Your task to perform on an android device: check battery use Image 0: 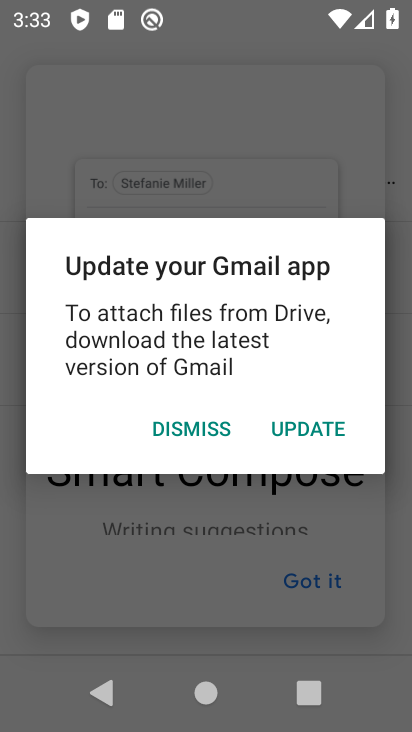
Step 0: press home button
Your task to perform on an android device: check battery use Image 1: 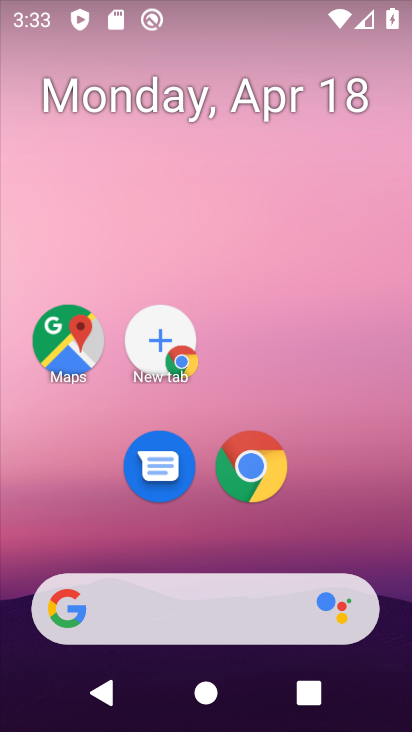
Step 1: drag from (309, 513) to (248, 31)
Your task to perform on an android device: check battery use Image 2: 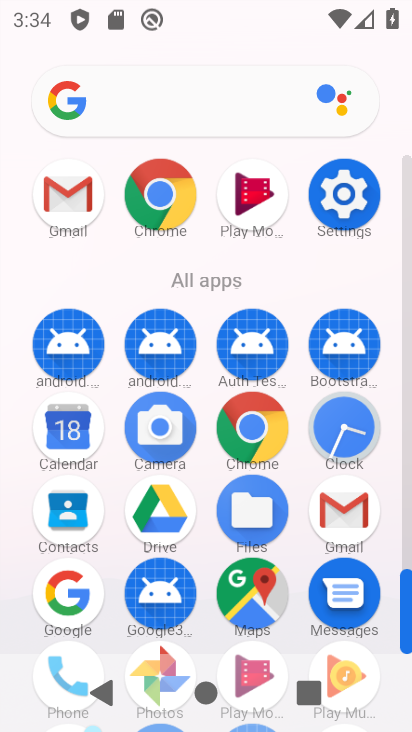
Step 2: click (338, 193)
Your task to perform on an android device: check battery use Image 3: 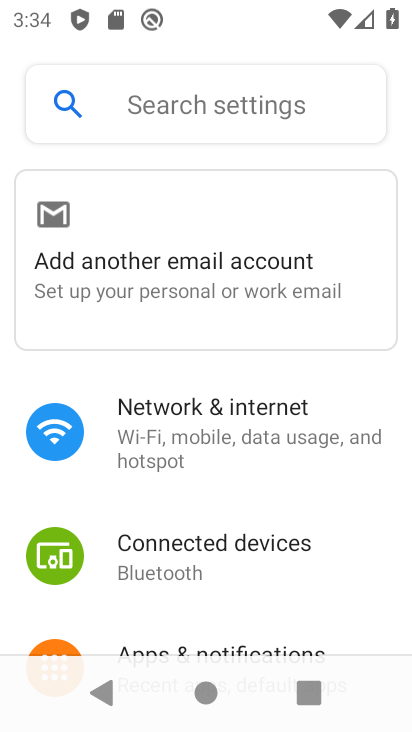
Step 3: drag from (289, 563) to (307, 196)
Your task to perform on an android device: check battery use Image 4: 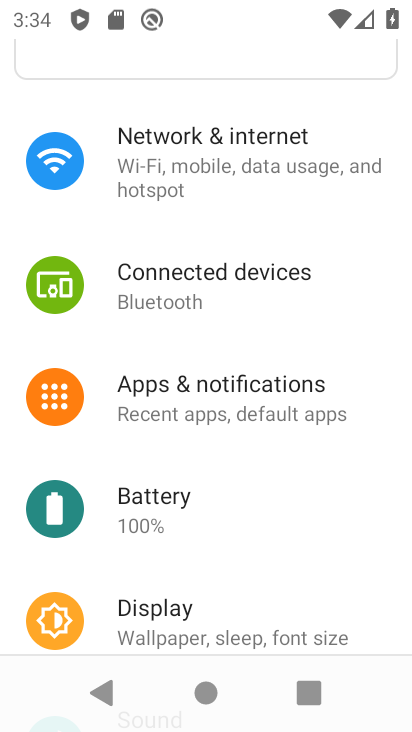
Step 4: click (189, 498)
Your task to perform on an android device: check battery use Image 5: 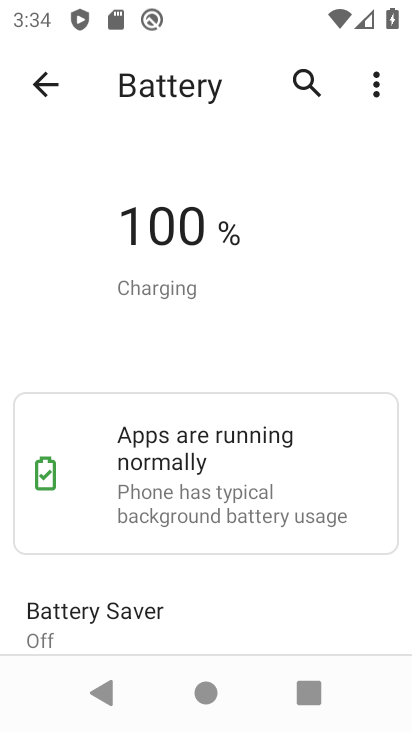
Step 5: task complete